Your task to perform on an android device: Go to Google Image 0: 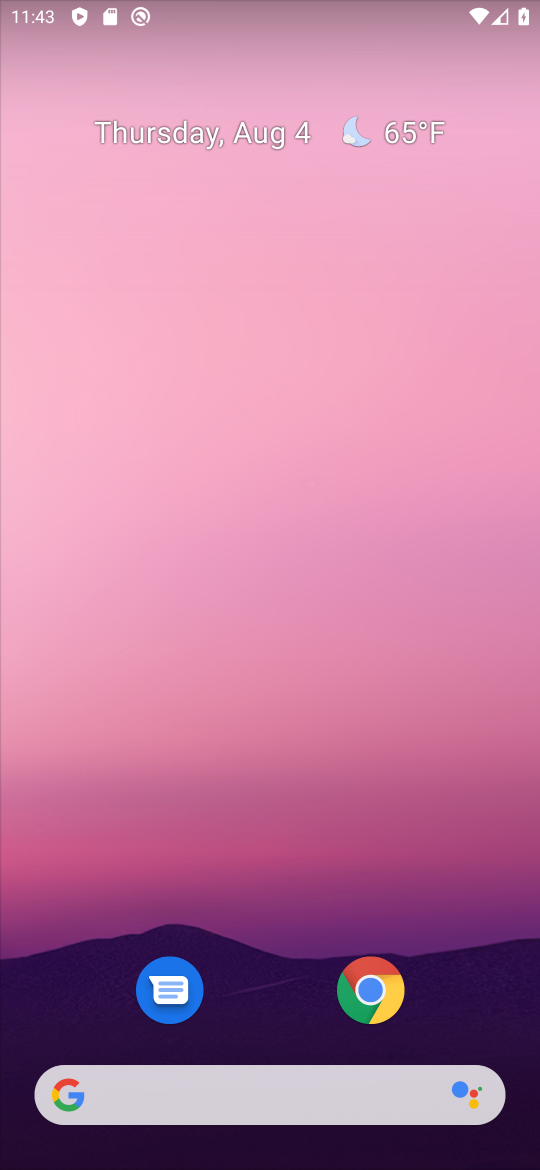
Step 0: drag from (490, 1005) to (347, 61)
Your task to perform on an android device: Go to Google Image 1: 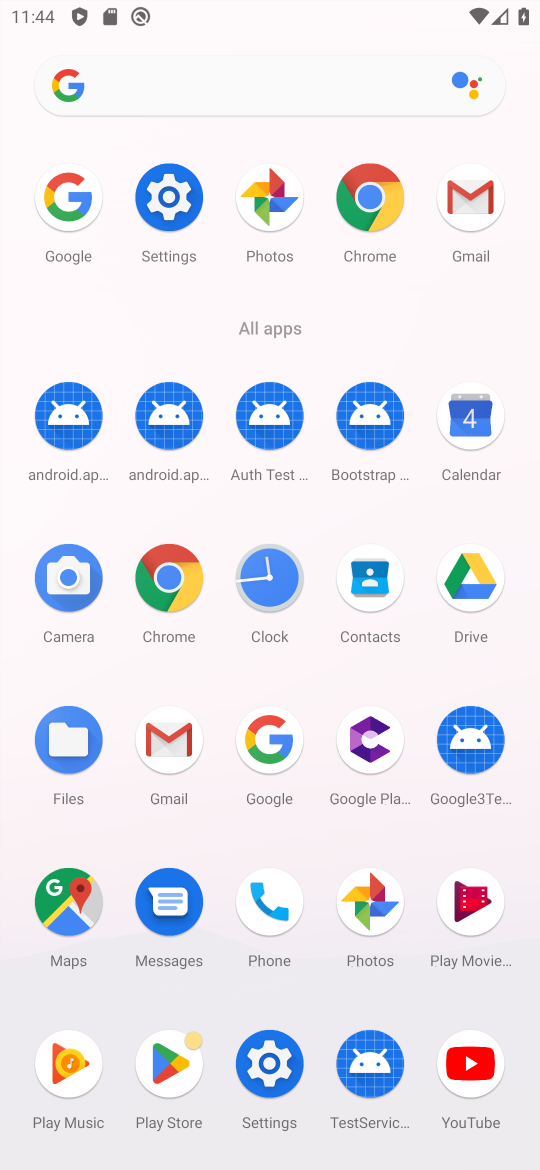
Step 1: click (267, 773)
Your task to perform on an android device: Go to Google Image 2: 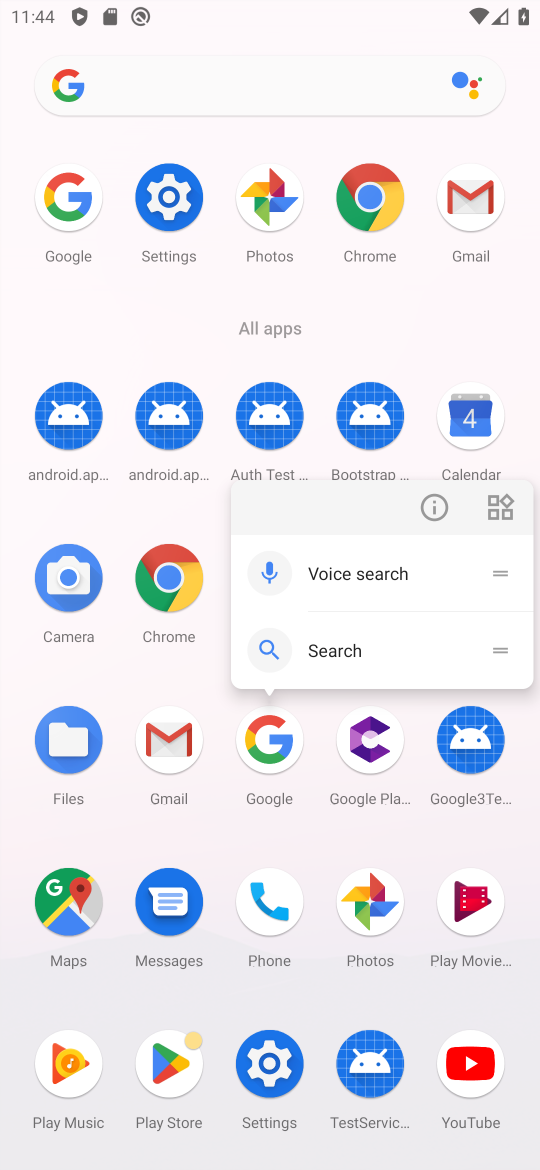
Step 2: click (274, 748)
Your task to perform on an android device: Go to Google Image 3: 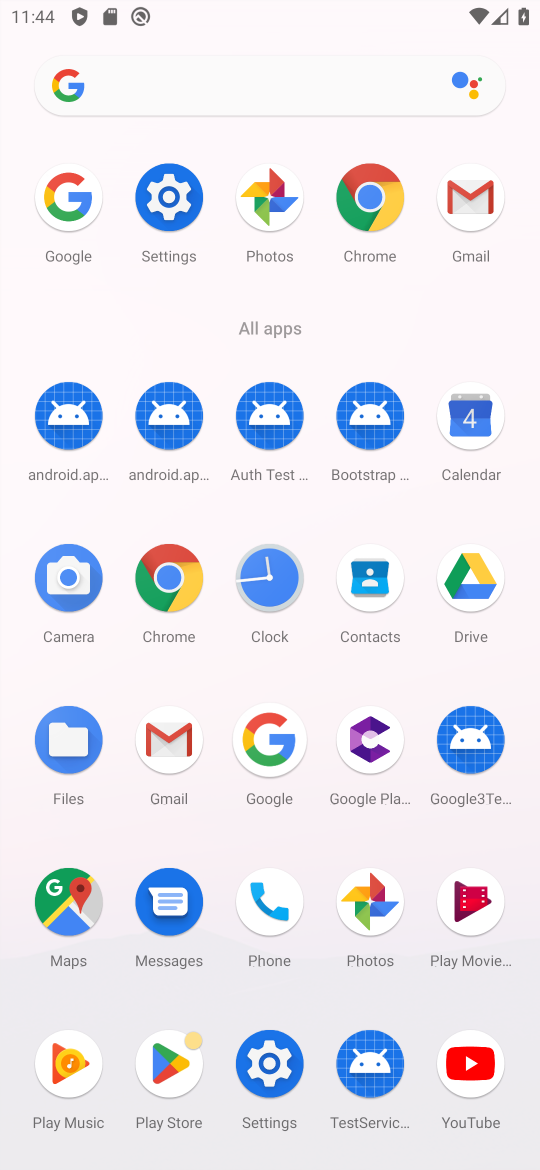
Step 3: click (263, 759)
Your task to perform on an android device: Go to Google Image 4: 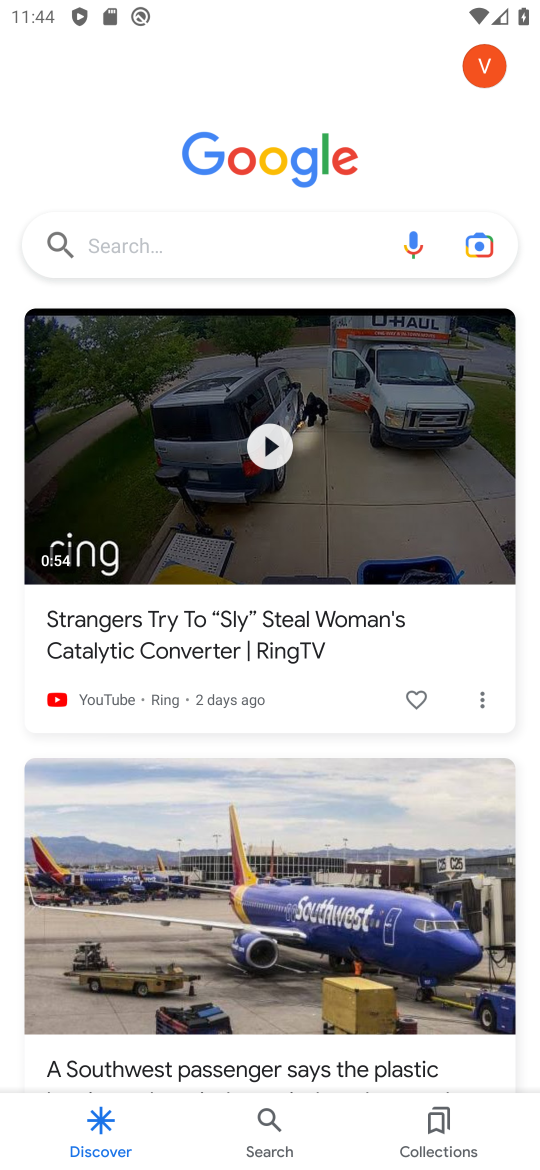
Step 4: task complete